Your task to perform on an android device: Open Amazon Image 0: 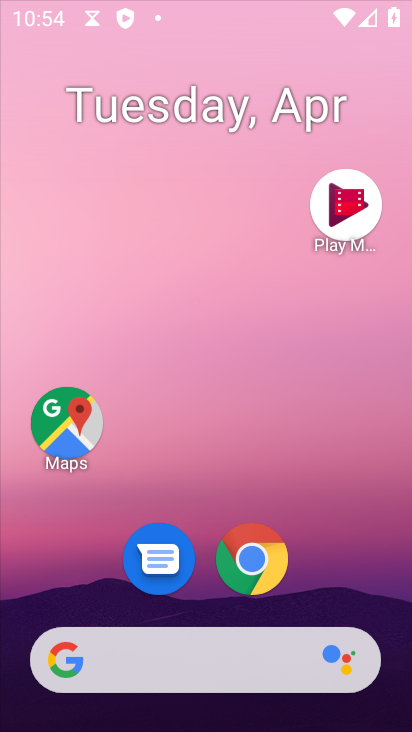
Step 0: drag from (286, 468) to (200, 43)
Your task to perform on an android device: Open Amazon Image 1: 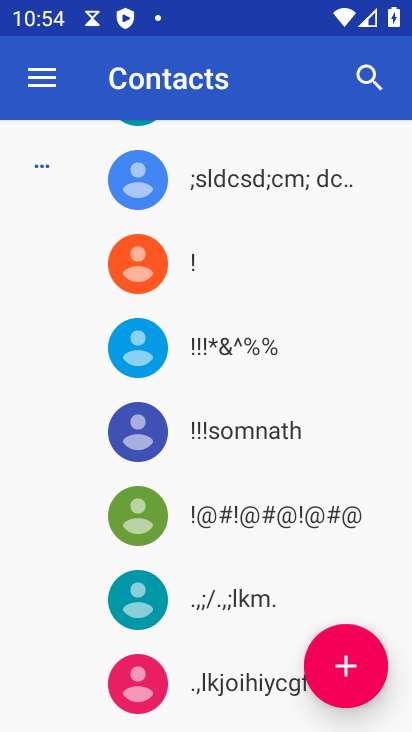
Step 1: press home button
Your task to perform on an android device: Open Amazon Image 2: 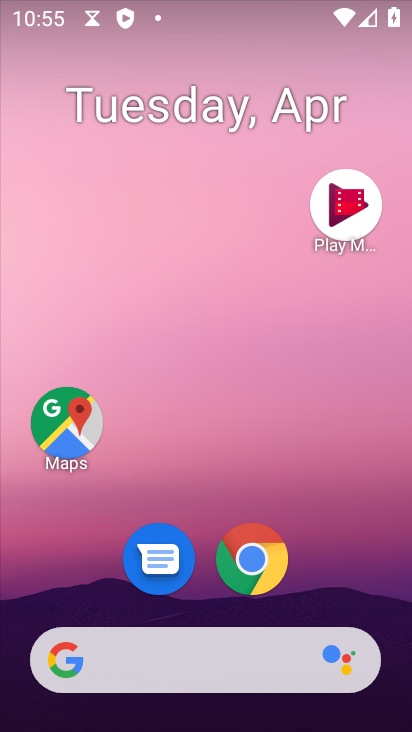
Step 2: click (260, 561)
Your task to perform on an android device: Open Amazon Image 3: 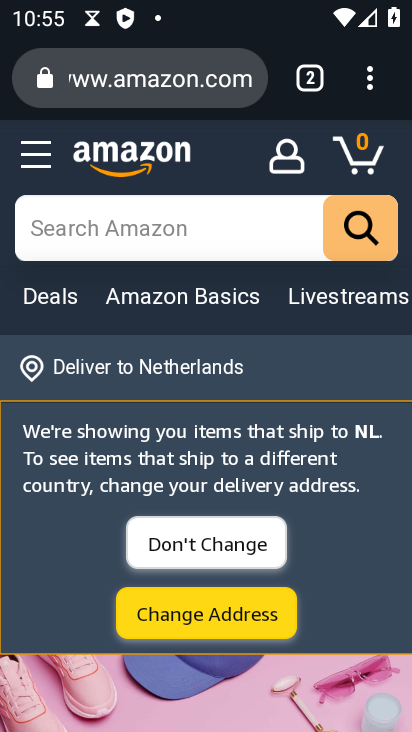
Step 3: task complete